Your task to perform on an android device: Open calendar and show me the fourth week of next month Image 0: 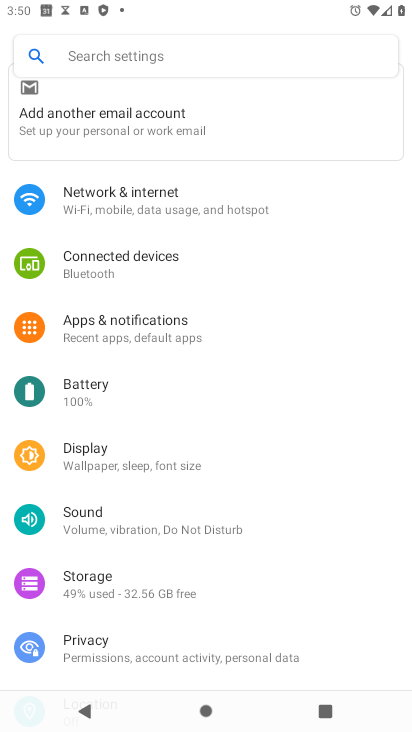
Step 0: press home button
Your task to perform on an android device: Open calendar and show me the fourth week of next month Image 1: 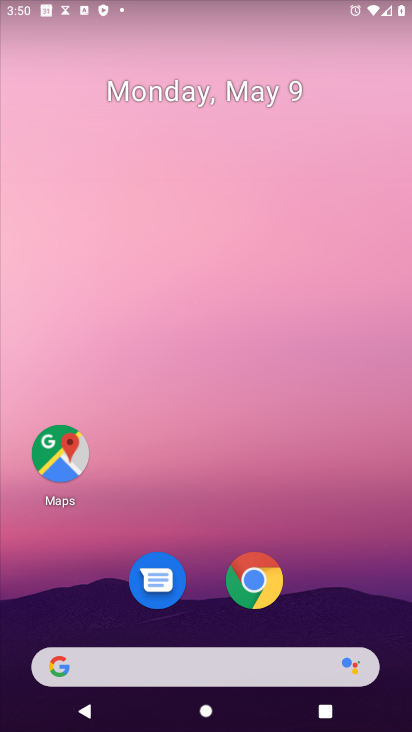
Step 1: drag from (288, 370) to (204, 104)
Your task to perform on an android device: Open calendar and show me the fourth week of next month Image 2: 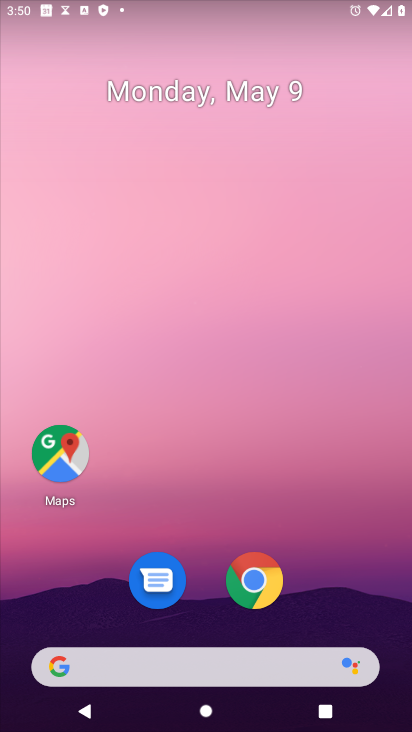
Step 2: drag from (316, 580) to (236, 111)
Your task to perform on an android device: Open calendar and show me the fourth week of next month Image 3: 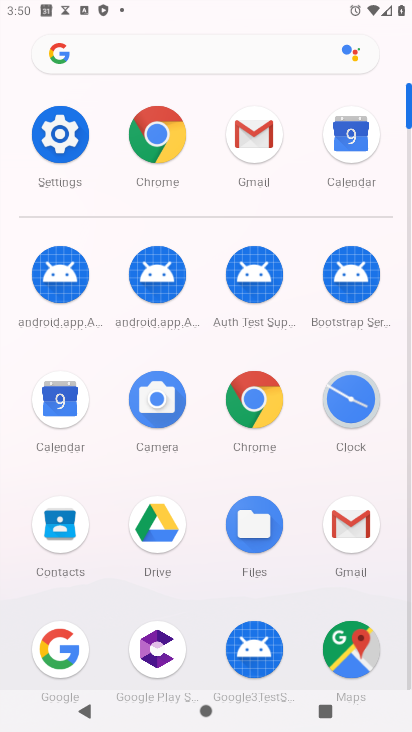
Step 3: click (57, 399)
Your task to perform on an android device: Open calendar and show me the fourth week of next month Image 4: 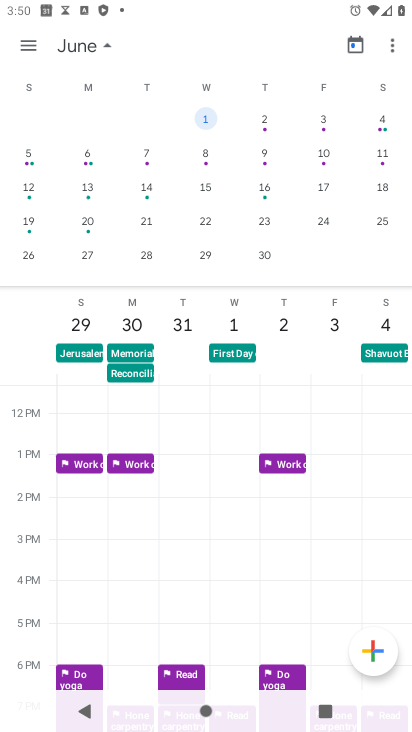
Step 4: click (34, 222)
Your task to perform on an android device: Open calendar and show me the fourth week of next month Image 5: 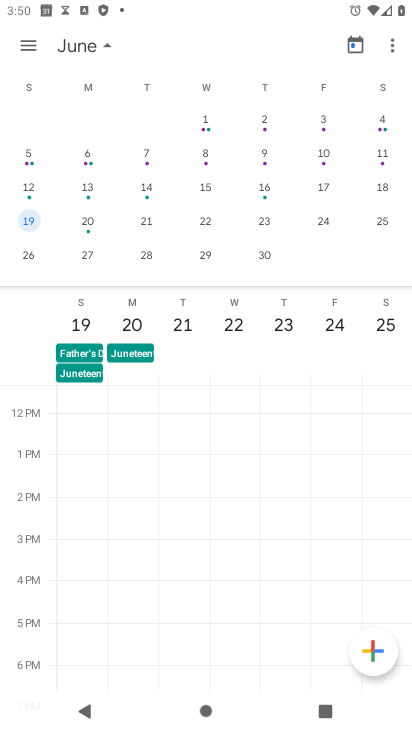
Step 5: task complete